Your task to perform on an android device: Do I have any events tomorrow? Image 0: 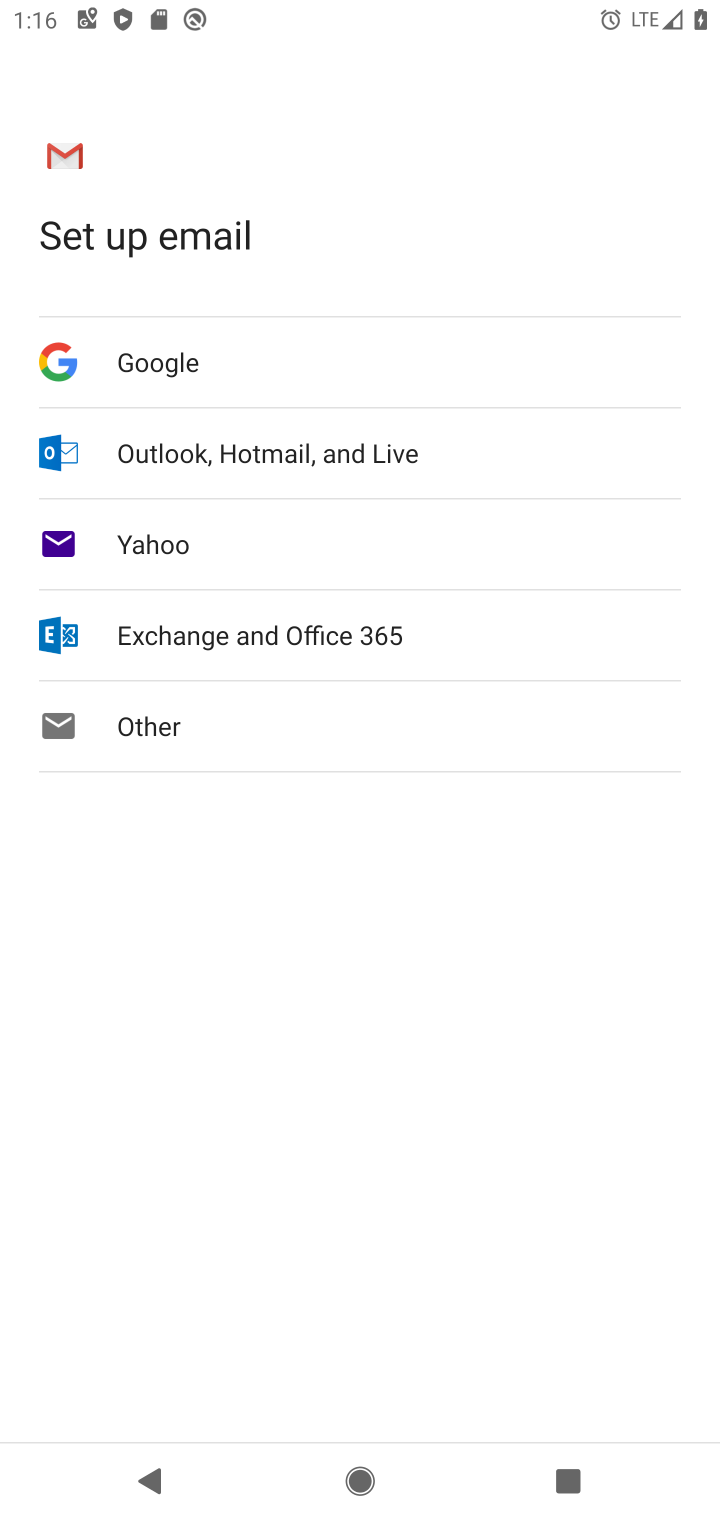
Step 0: press home button
Your task to perform on an android device: Do I have any events tomorrow? Image 1: 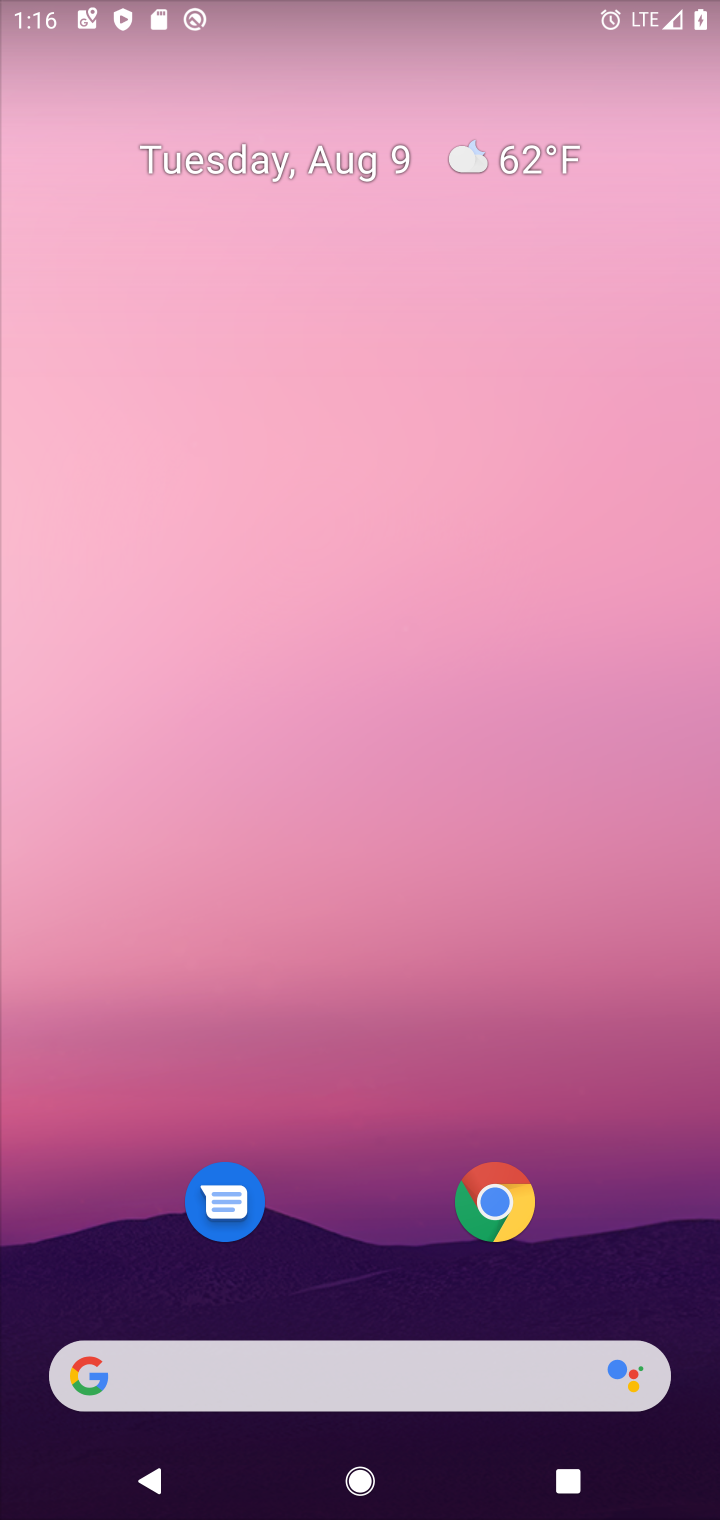
Step 1: drag from (358, 820) to (317, 288)
Your task to perform on an android device: Do I have any events tomorrow? Image 2: 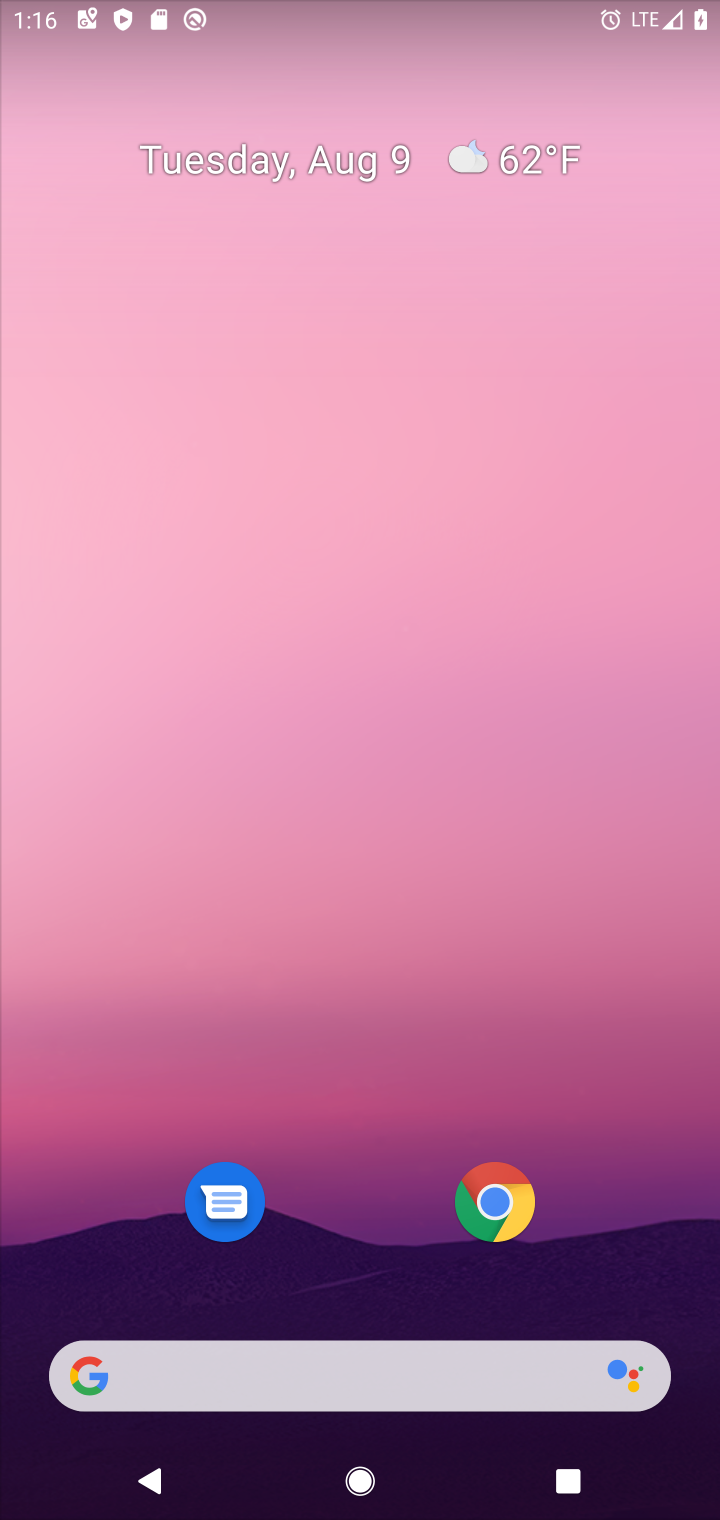
Step 2: drag from (356, 355) to (356, 188)
Your task to perform on an android device: Do I have any events tomorrow? Image 3: 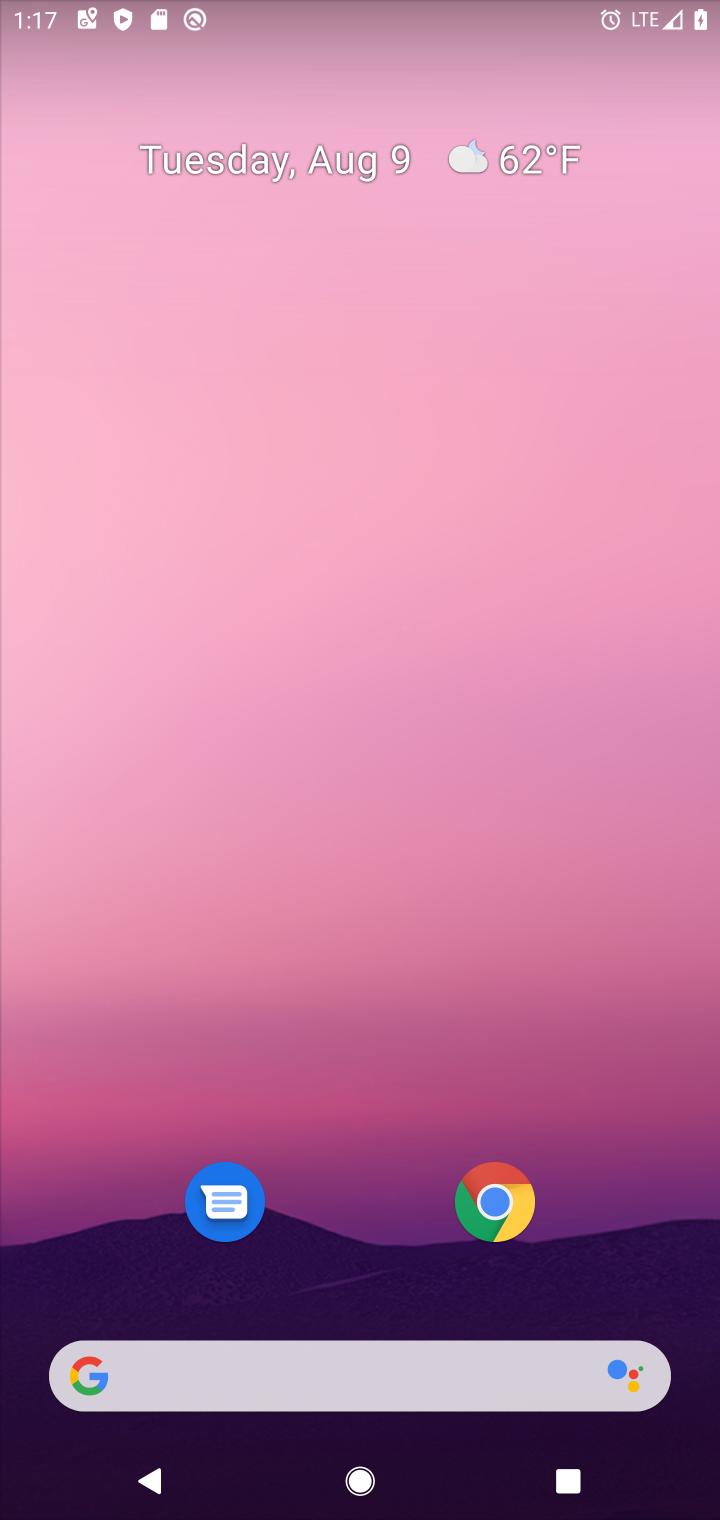
Step 3: drag from (337, 1266) to (337, 193)
Your task to perform on an android device: Do I have any events tomorrow? Image 4: 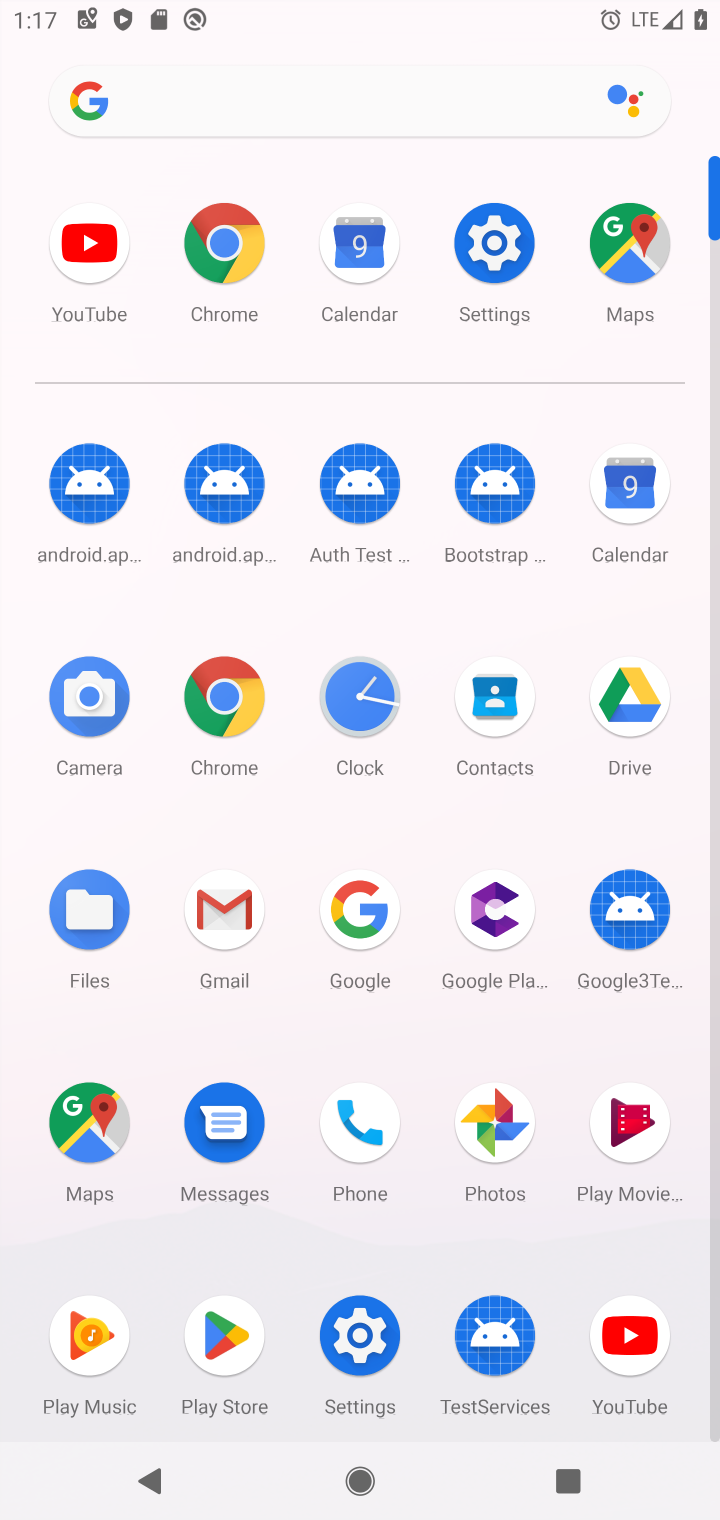
Step 4: click (628, 556)
Your task to perform on an android device: Do I have any events tomorrow? Image 5: 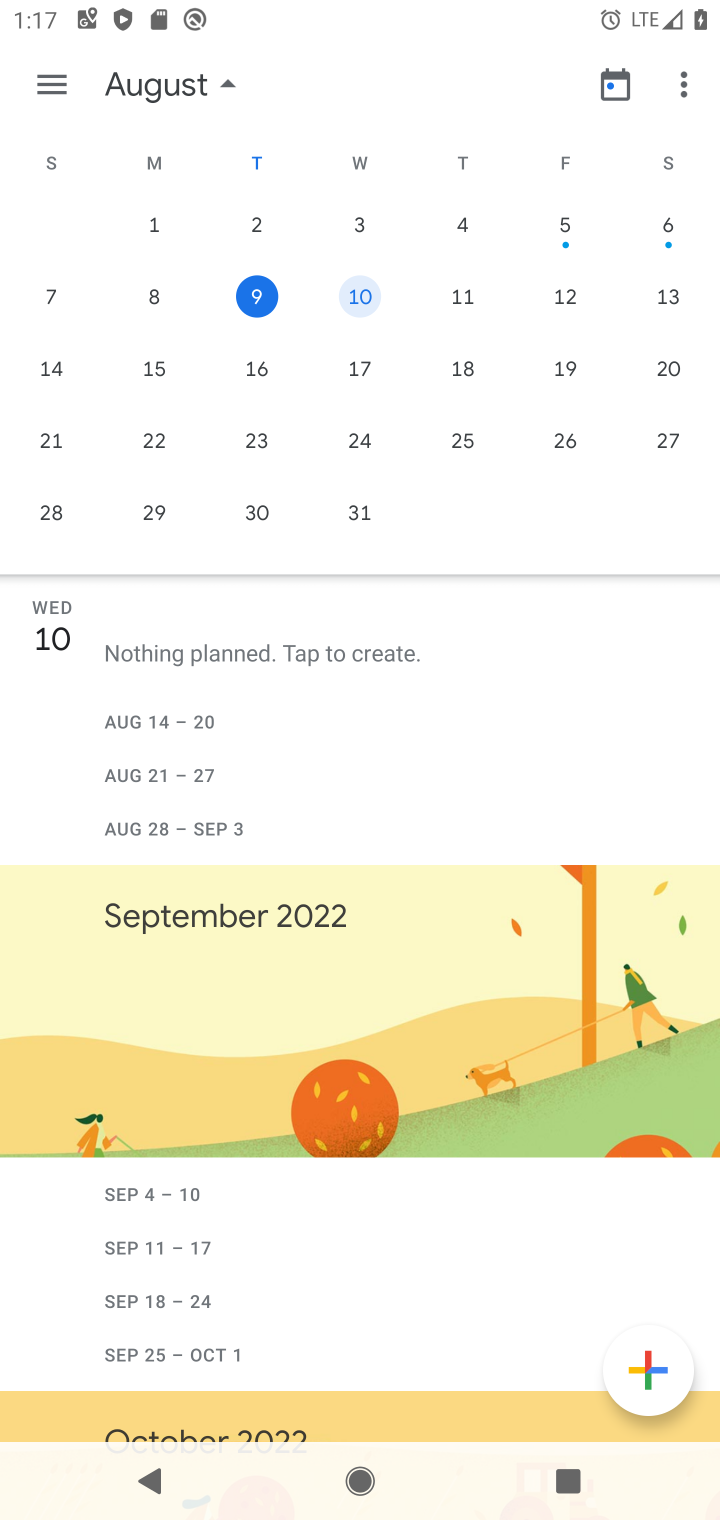
Step 5: task complete